Your task to perform on an android device: Open Google Chrome and click the shortcut for Amazon.com Image 0: 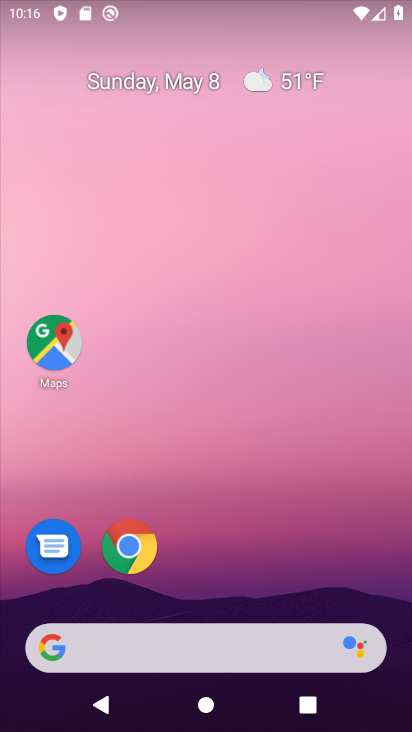
Step 0: click (129, 544)
Your task to perform on an android device: Open Google Chrome and click the shortcut for Amazon.com Image 1: 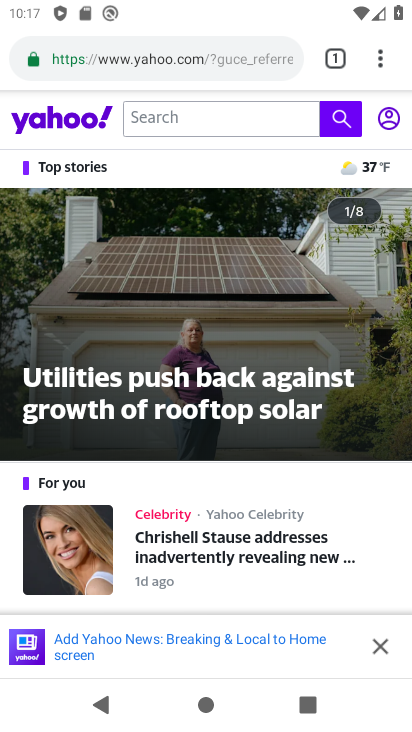
Step 1: click (267, 59)
Your task to perform on an android device: Open Google Chrome and click the shortcut for Amazon.com Image 2: 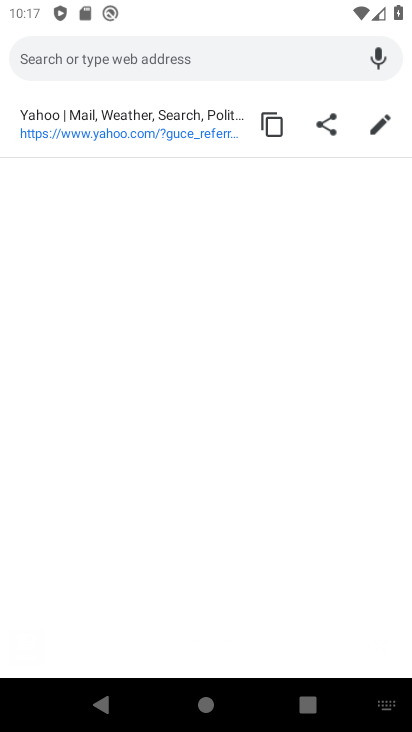
Step 2: type "Amazon.com"
Your task to perform on an android device: Open Google Chrome and click the shortcut for Amazon.com Image 3: 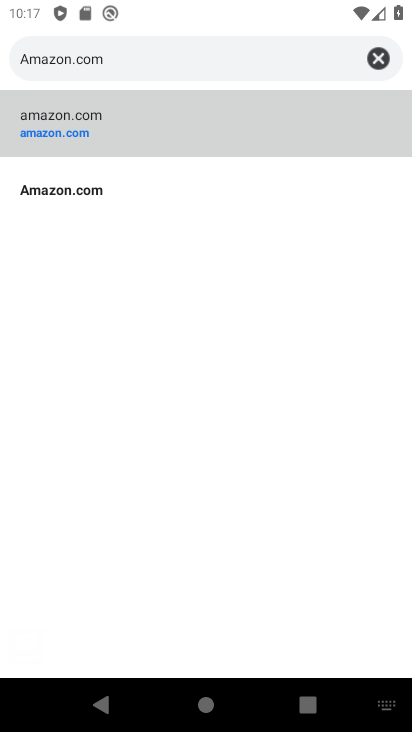
Step 3: click (48, 193)
Your task to perform on an android device: Open Google Chrome and click the shortcut for Amazon.com Image 4: 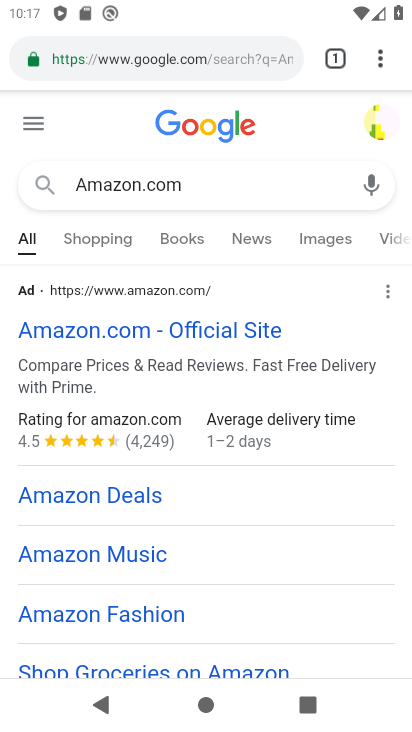
Step 4: click (121, 340)
Your task to perform on an android device: Open Google Chrome and click the shortcut for Amazon.com Image 5: 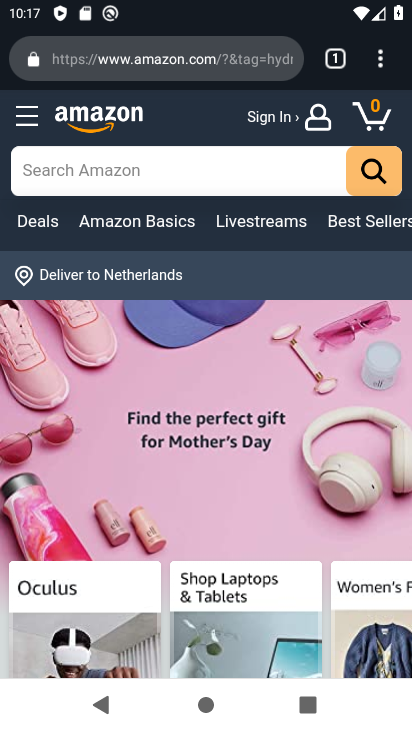
Step 5: click (381, 62)
Your task to perform on an android device: Open Google Chrome and click the shortcut for Amazon.com Image 6: 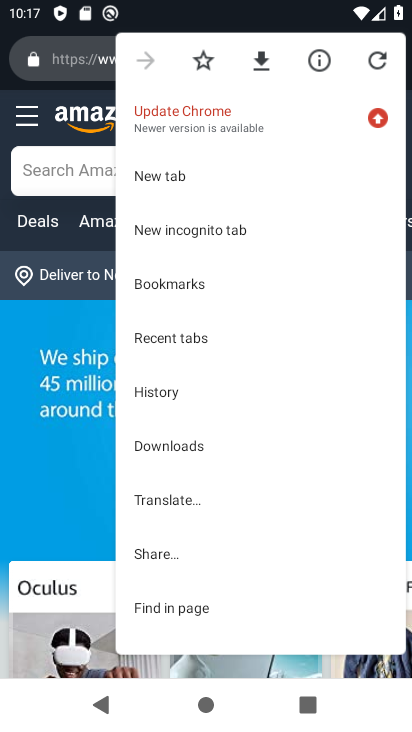
Step 6: drag from (246, 523) to (328, 407)
Your task to perform on an android device: Open Google Chrome and click the shortcut for Amazon.com Image 7: 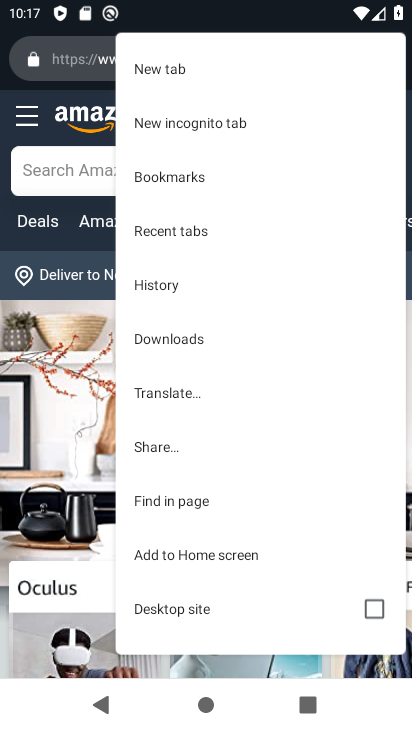
Step 7: click (232, 556)
Your task to perform on an android device: Open Google Chrome and click the shortcut for Amazon.com Image 8: 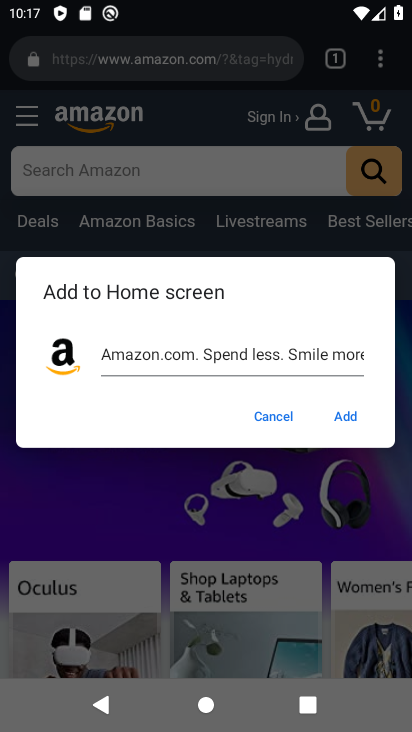
Step 8: click (342, 416)
Your task to perform on an android device: Open Google Chrome and click the shortcut for Amazon.com Image 9: 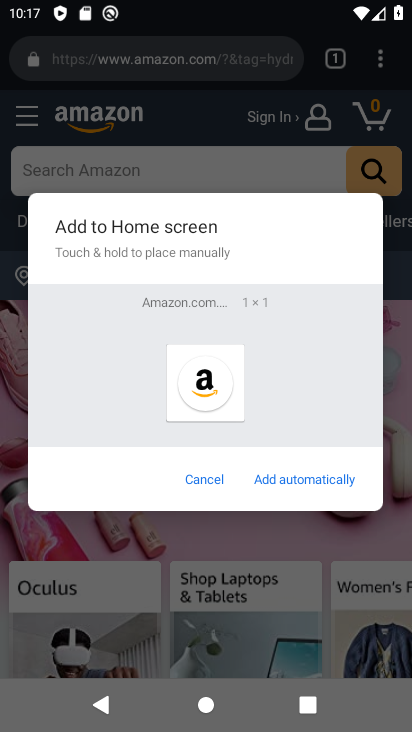
Step 9: click (349, 484)
Your task to perform on an android device: Open Google Chrome and click the shortcut for Amazon.com Image 10: 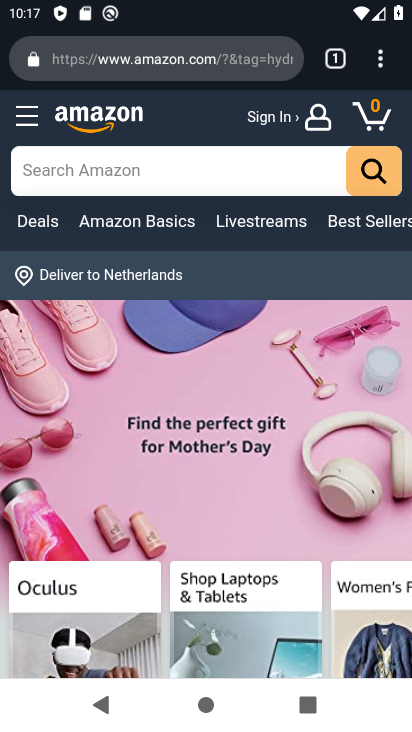
Step 10: task complete